Your task to perform on an android device: manage bookmarks in the chrome app Image 0: 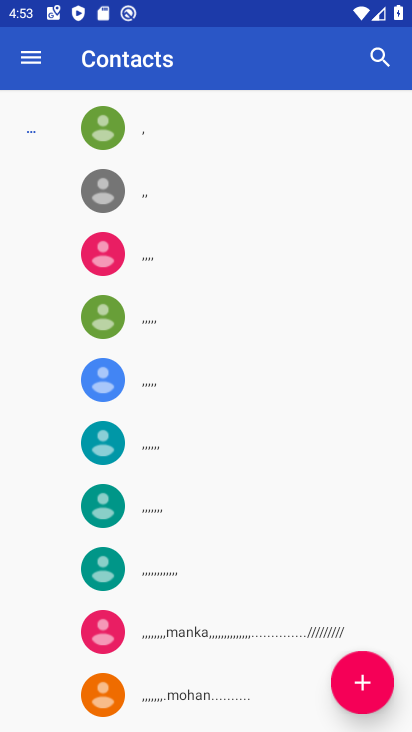
Step 0: press home button
Your task to perform on an android device: manage bookmarks in the chrome app Image 1: 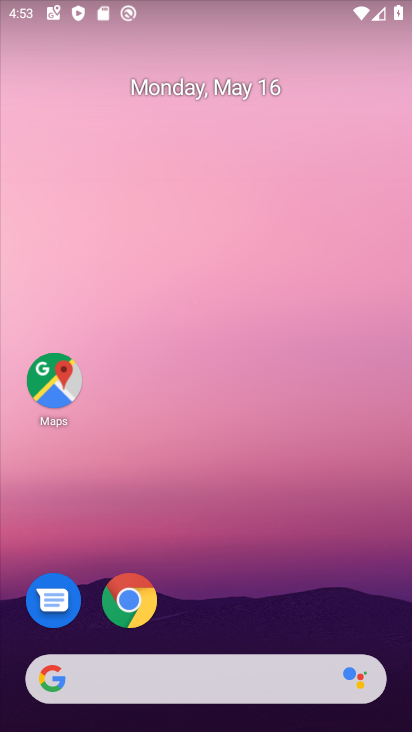
Step 1: click (140, 599)
Your task to perform on an android device: manage bookmarks in the chrome app Image 2: 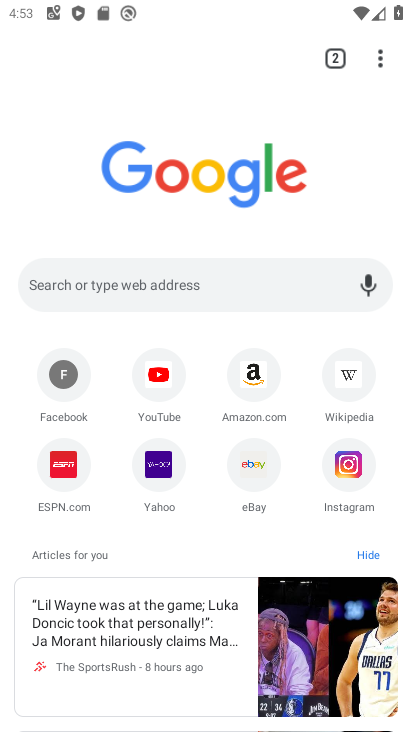
Step 2: click (370, 53)
Your task to perform on an android device: manage bookmarks in the chrome app Image 3: 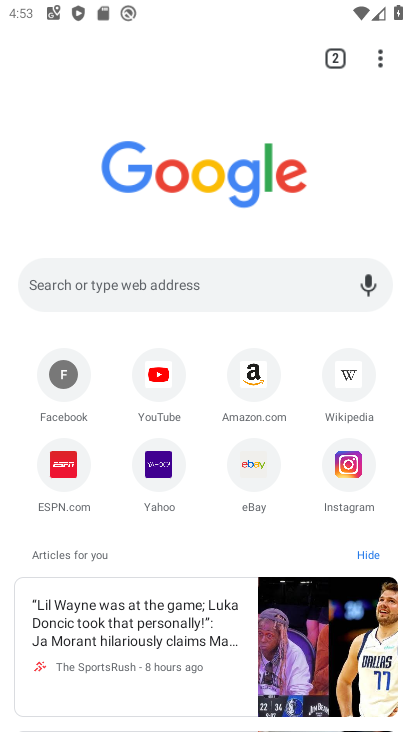
Step 3: click (376, 59)
Your task to perform on an android device: manage bookmarks in the chrome app Image 4: 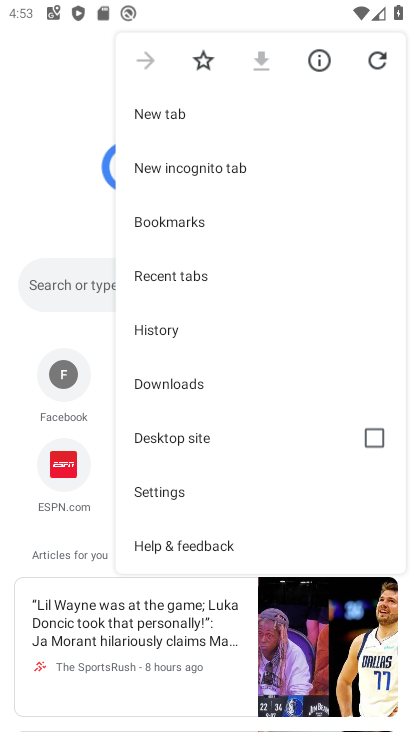
Step 4: click (164, 225)
Your task to perform on an android device: manage bookmarks in the chrome app Image 5: 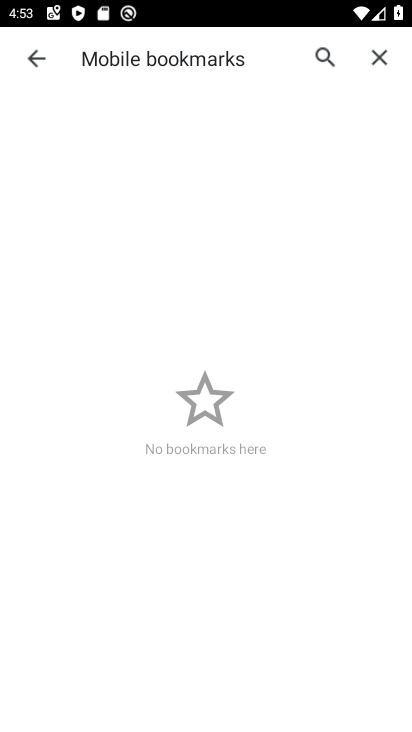
Step 5: task complete